Your task to perform on an android device: Open Google Maps and go to "Timeline" Image 0: 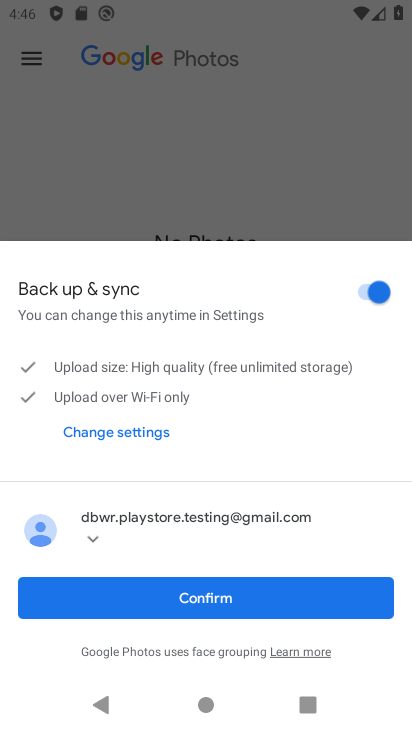
Step 0: press home button
Your task to perform on an android device: Open Google Maps and go to "Timeline" Image 1: 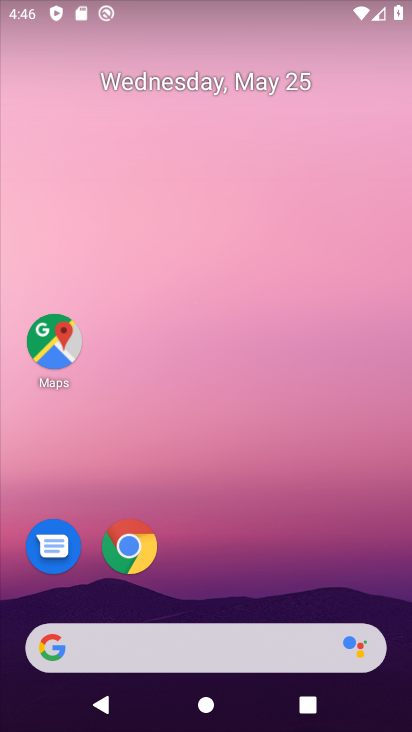
Step 1: click (48, 347)
Your task to perform on an android device: Open Google Maps and go to "Timeline" Image 2: 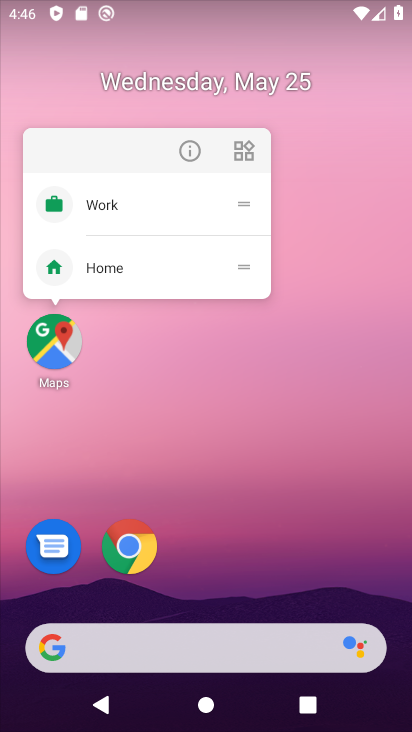
Step 2: click (33, 355)
Your task to perform on an android device: Open Google Maps and go to "Timeline" Image 3: 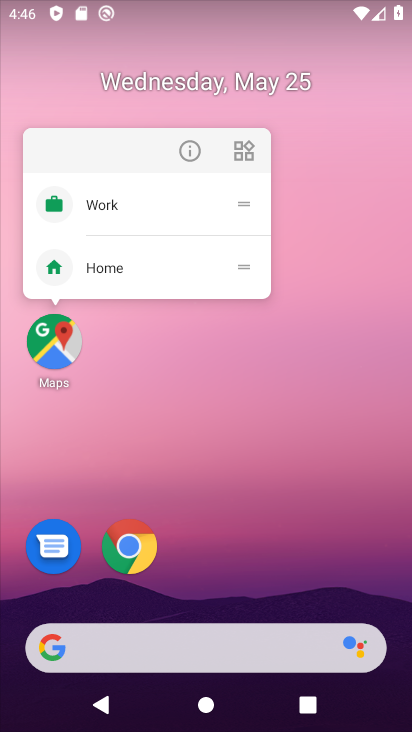
Step 3: click (33, 355)
Your task to perform on an android device: Open Google Maps and go to "Timeline" Image 4: 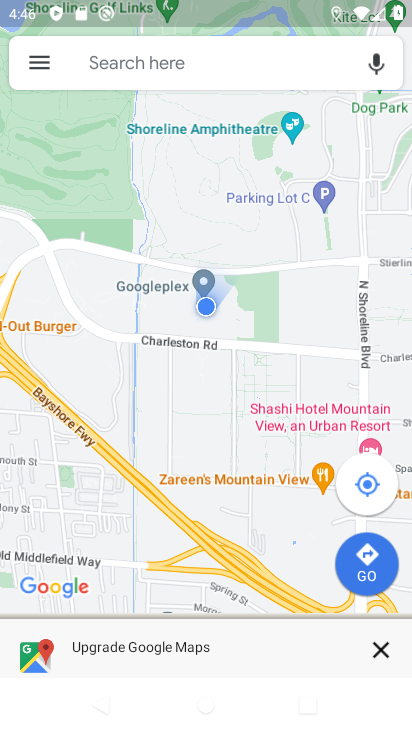
Step 4: click (39, 59)
Your task to perform on an android device: Open Google Maps and go to "Timeline" Image 5: 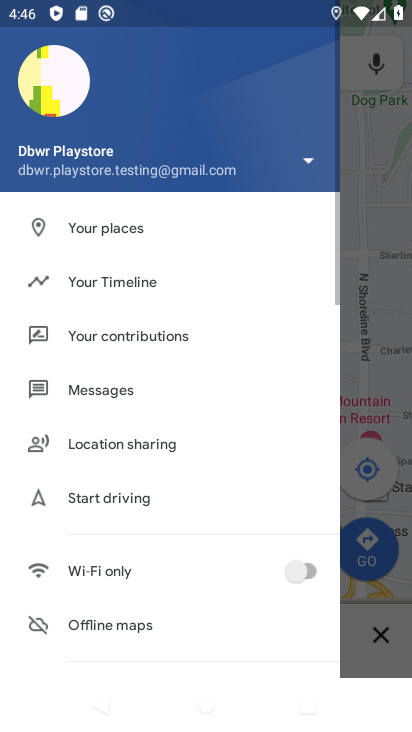
Step 5: click (94, 289)
Your task to perform on an android device: Open Google Maps and go to "Timeline" Image 6: 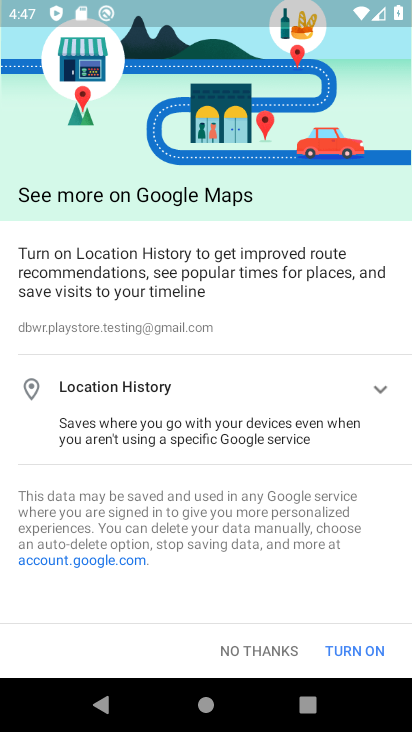
Step 6: click (253, 647)
Your task to perform on an android device: Open Google Maps and go to "Timeline" Image 7: 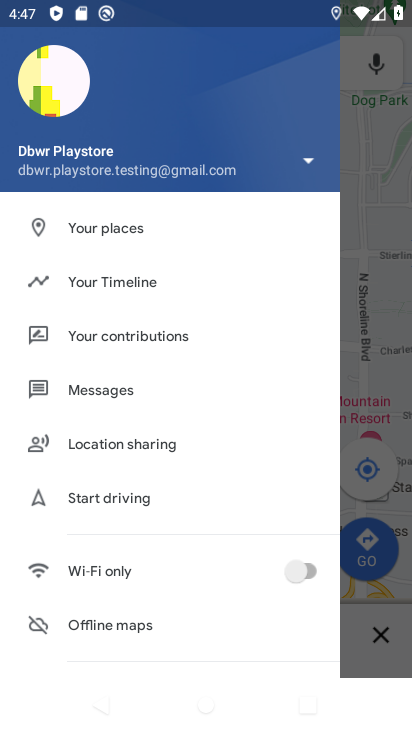
Step 7: click (209, 293)
Your task to perform on an android device: Open Google Maps and go to "Timeline" Image 8: 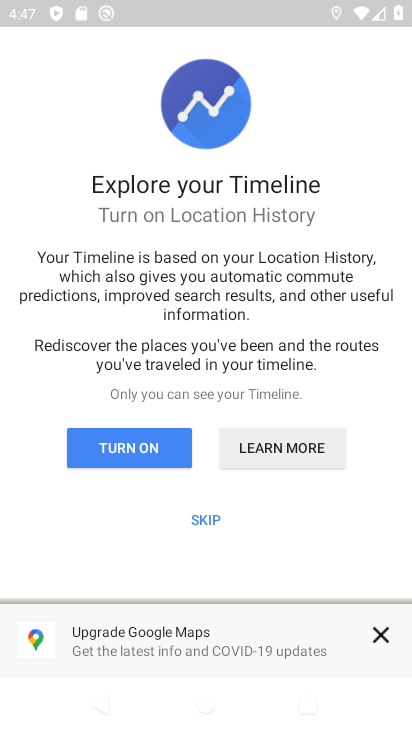
Step 8: click (206, 516)
Your task to perform on an android device: Open Google Maps and go to "Timeline" Image 9: 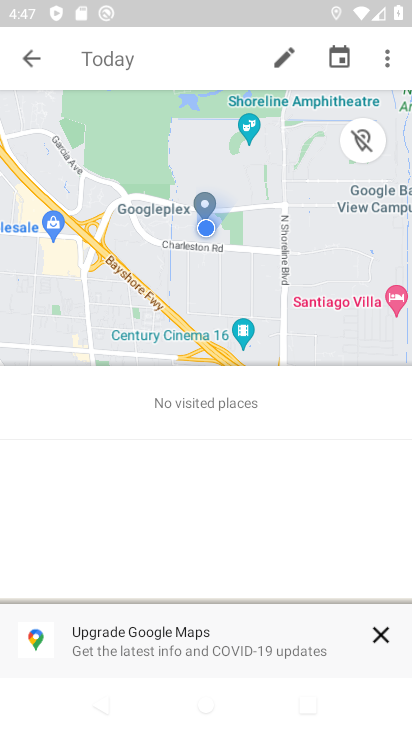
Step 9: task complete